Your task to perform on an android device: Who is the prime minister of Canada? Image 0: 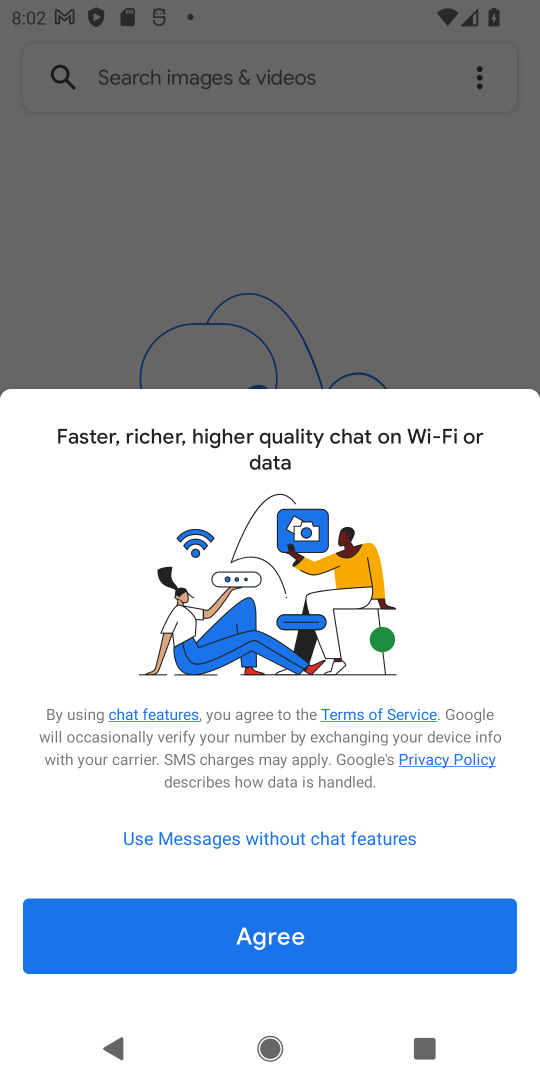
Step 0: press home button
Your task to perform on an android device: Who is the prime minister of Canada? Image 1: 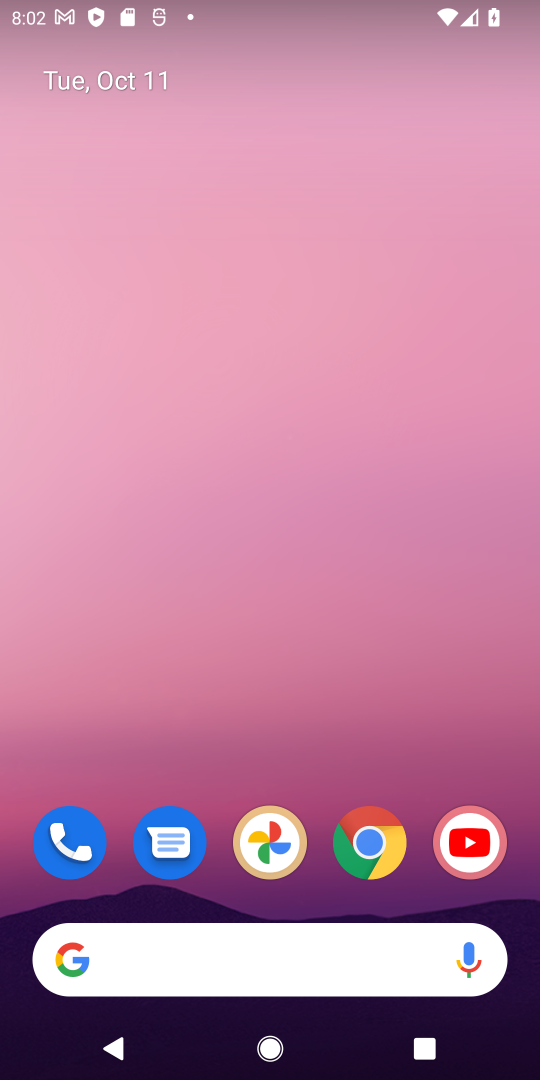
Step 1: click (370, 854)
Your task to perform on an android device: Who is the prime minister of Canada? Image 2: 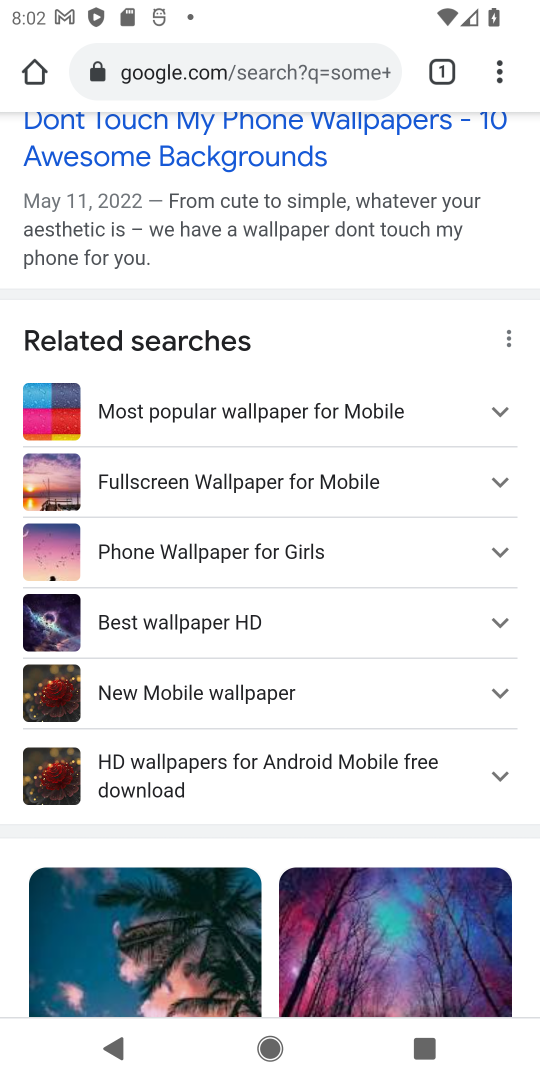
Step 2: click (222, 69)
Your task to perform on an android device: Who is the prime minister of Canada? Image 3: 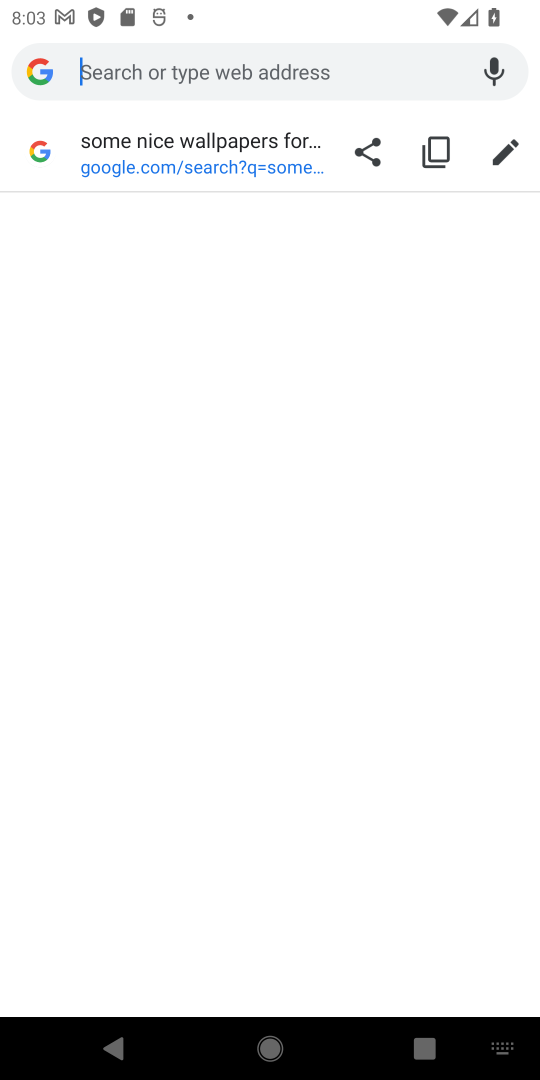
Step 3: type "prime minister of canada"
Your task to perform on an android device: Who is the prime minister of Canada? Image 4: 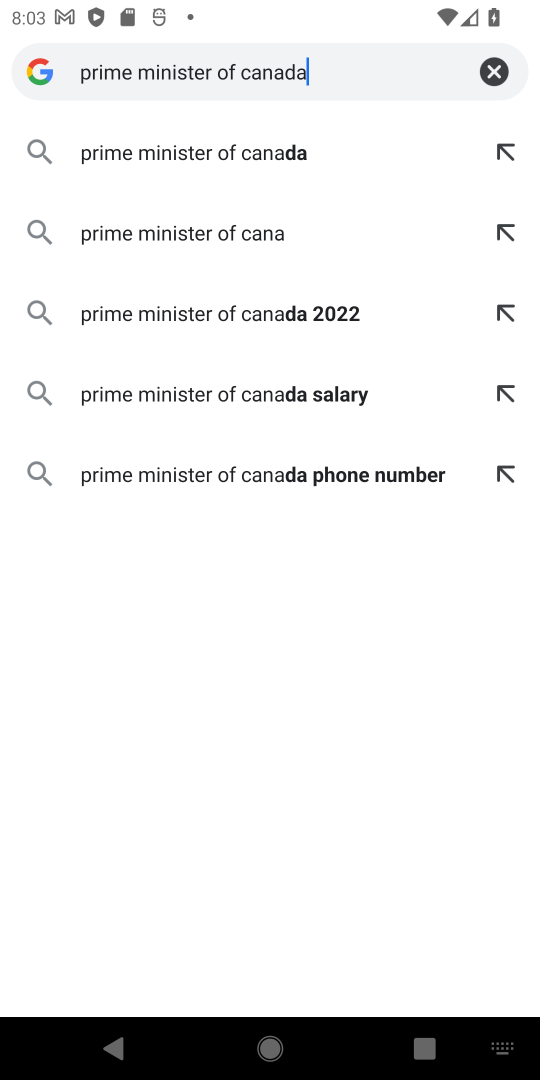
Step 4: type ""
Your task to perform on an android device: Who is the prime minister of Canada? Image 5: 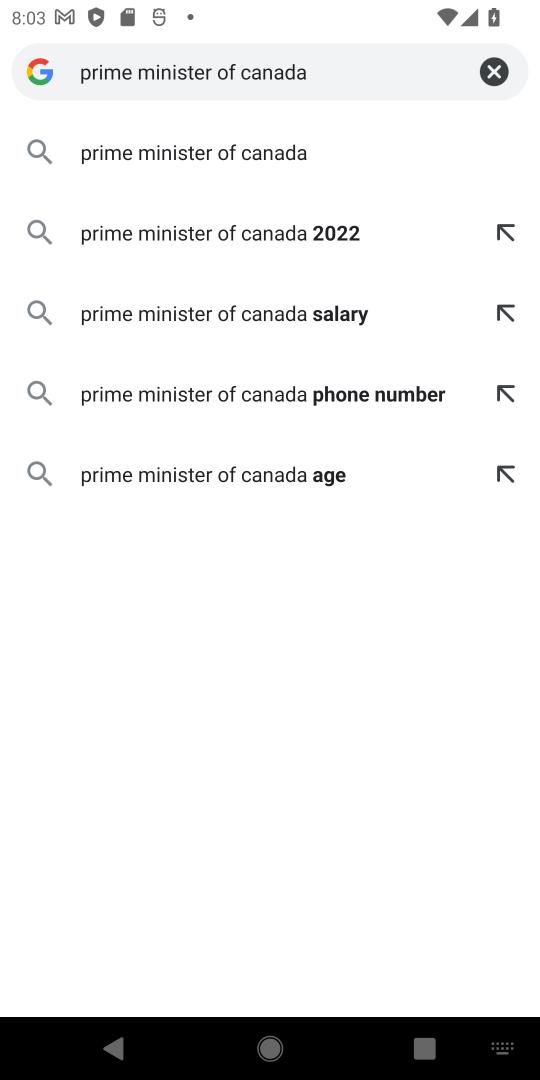
Step 5: click (202, 149)
Your task to perform on an android device: Who is the prime minister of Canada? Image 6: 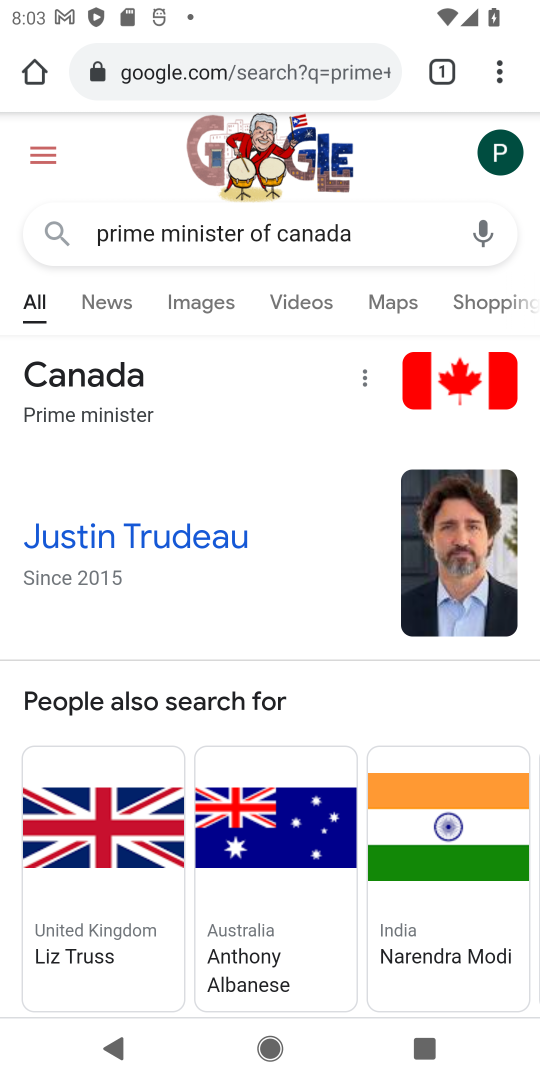
Step 6: drag from (201, 609) to (206, 423)
Your task to perform on an android device: Who is the prime minister of Canada? Image 7: 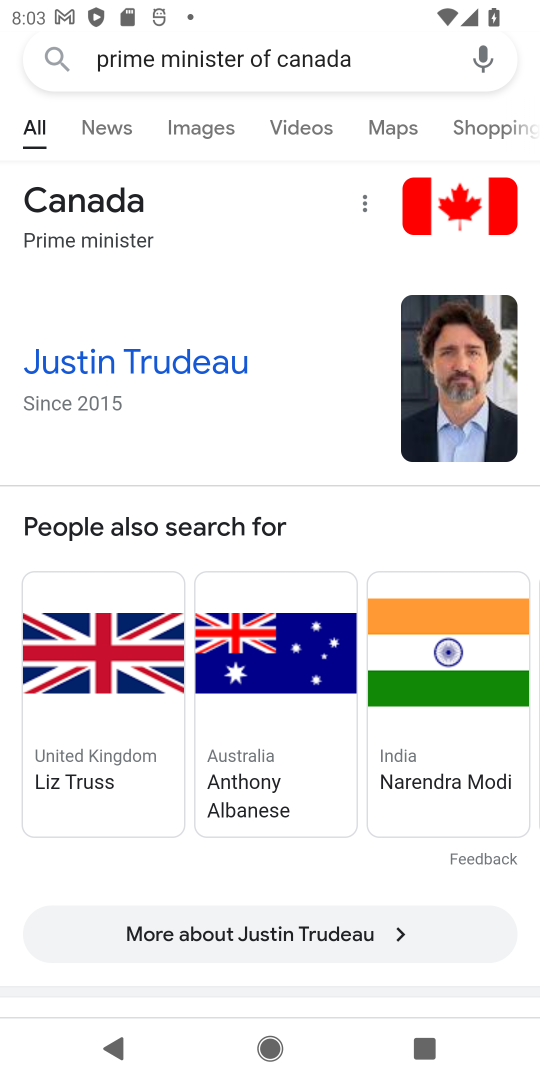
Step 7: drag from (232, 816) to (265, 433)
Your task to perform on an android device: Who is the prime minister of Canada? Image 8: 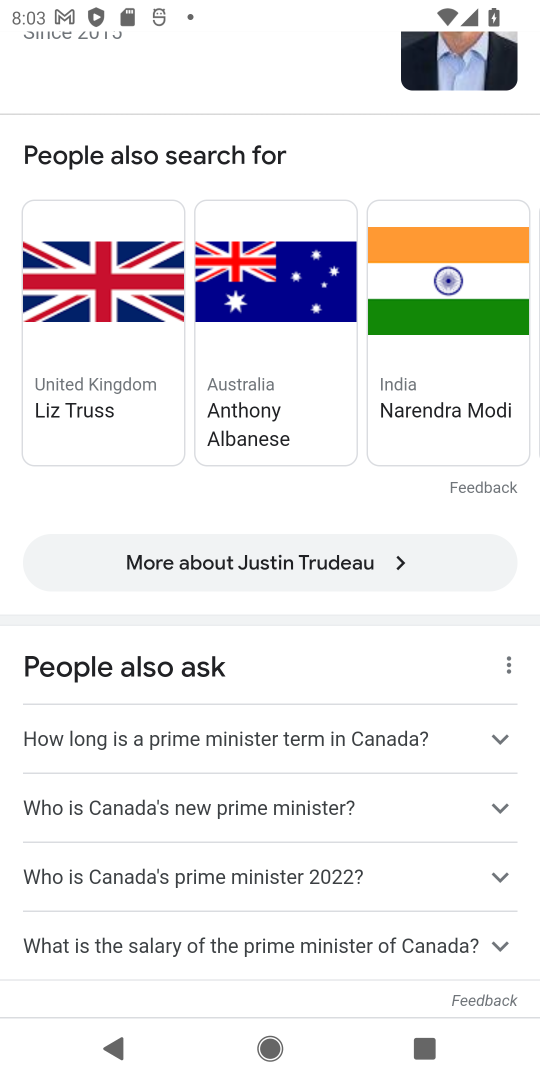
Step 8: drag from (252, 817) to (284, 470)
Your task to perform on an android device: Who is the prime minister of Canada? Image 9: 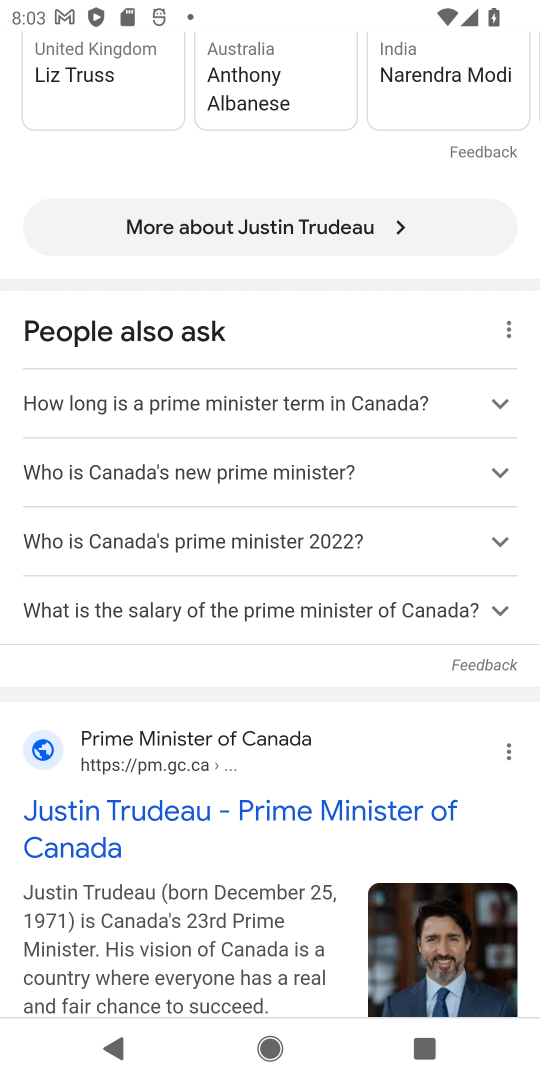
Step 9: drag from (221, 889) to (254, 536)
Your task to perform on an android device: Who is the prime minister of Canada? Image 10: 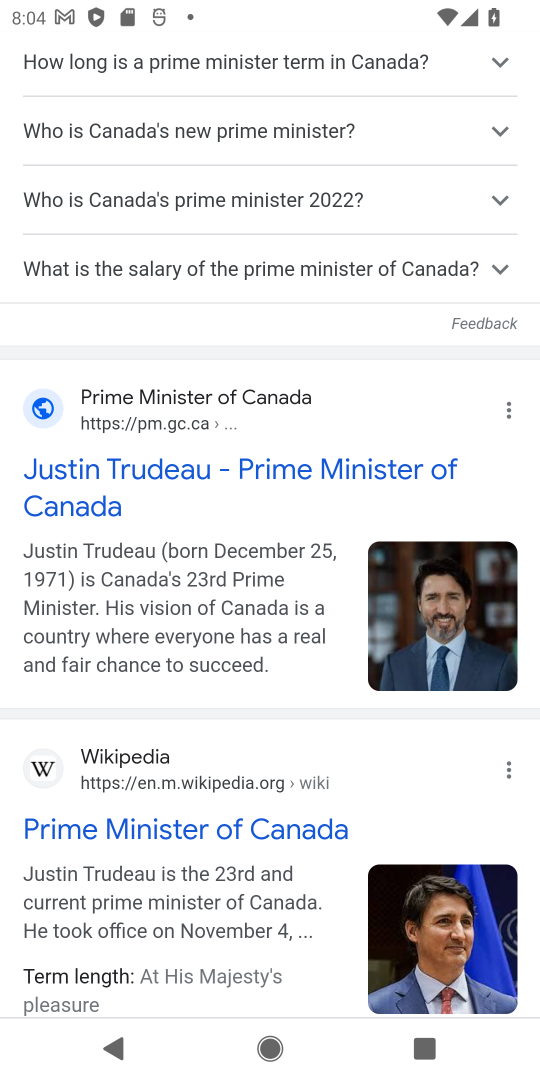
Step 10: drag from (197, 846) to (233, 482)
Your task to perform on an android device: Who is the prime minister of Canada? Image 11: 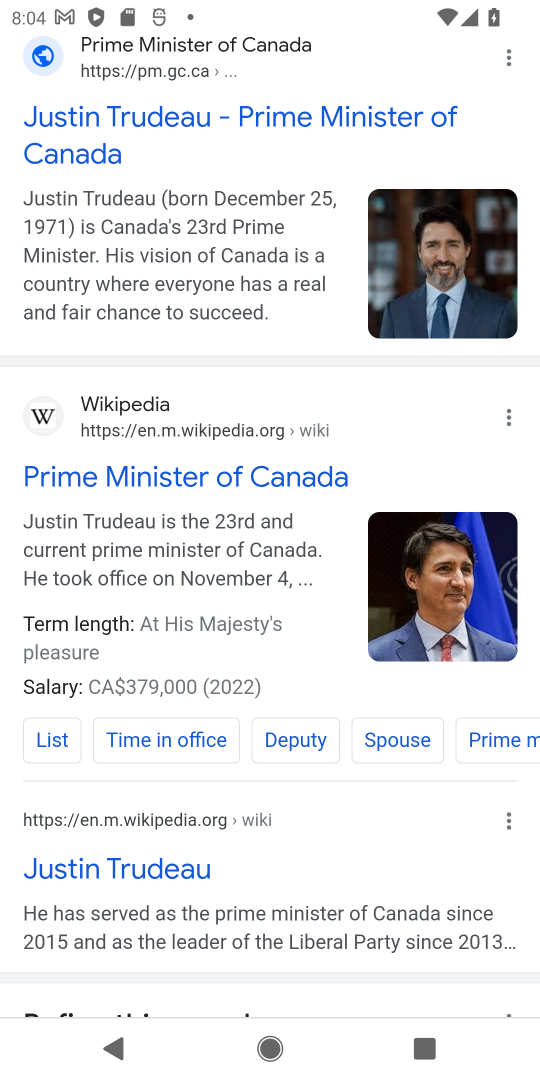
Step 11: drag from (173, 518) to (227, 332)
Your task to perform on an android device: Who is the prime minister of Canada? Image 12: 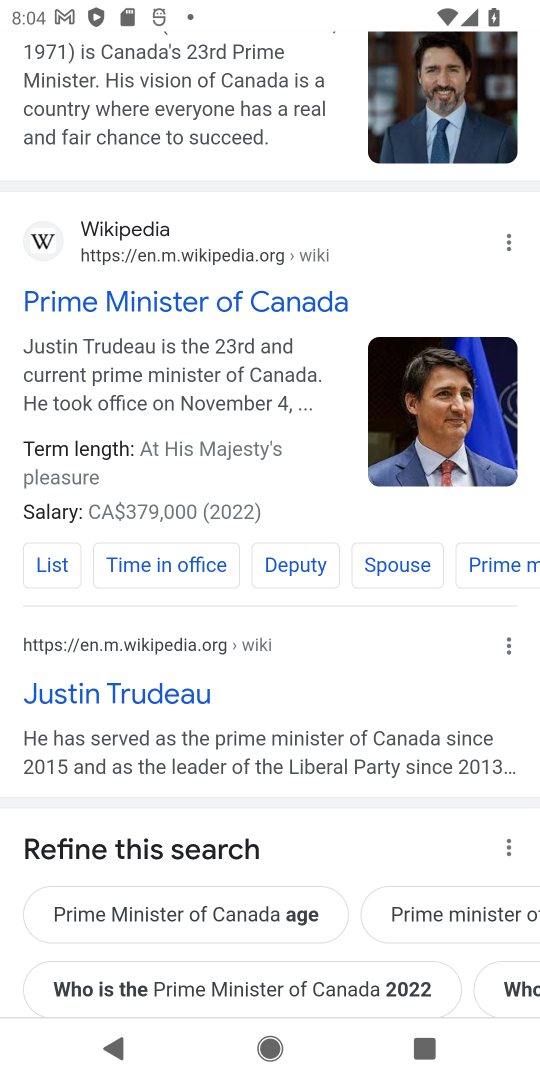
Step 12: click (269, 271)
Your task to perform on an android device: Who is the prime minister of Canada? Image 13: 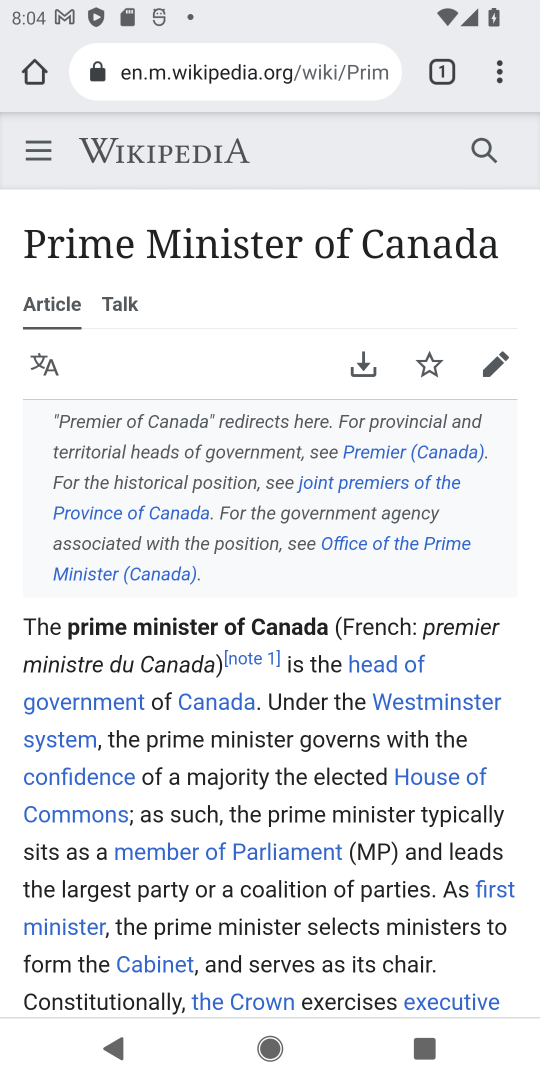
Step 13: task complete